Your task to perform on an android device: Open the Play Movies app and select the watchlist tab. Image 0: 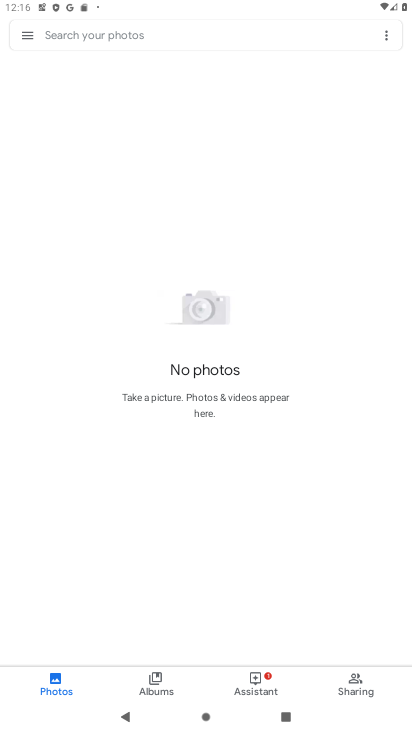
Step 0: press home button
Your task to perform on an android device: Open the Play Movies app and select the watchlist tab. Image 1: 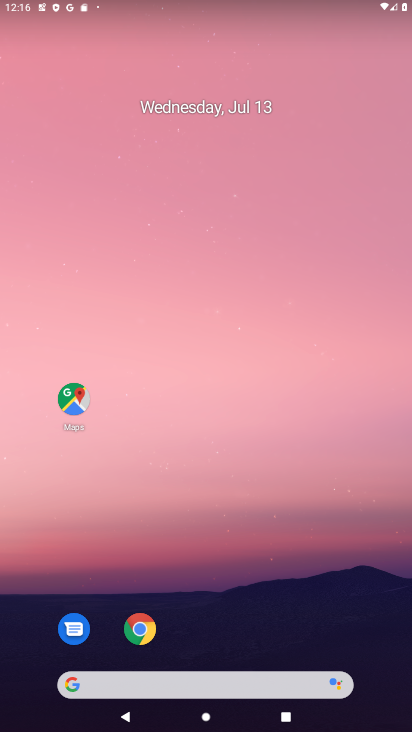
Step 1: drag from (236, 608) to (229, 249)
Your task to perform on an android device: Open the Play Movies app and select the watchlist tab. Image 2: 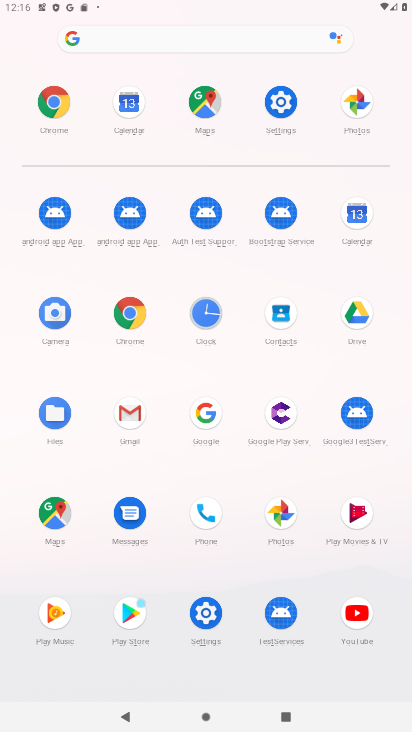
Step 2: click (352, 509)
Your task to perform on an android device: Open the Play Movies app and select the watchlist tab. Image 3: 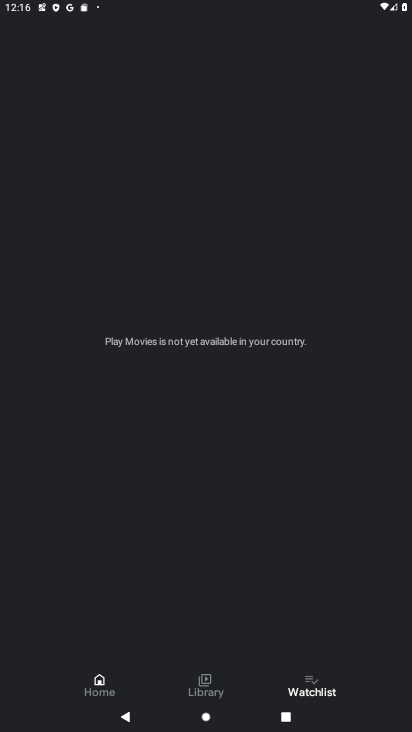
Step 3: click (325, 678)
Your task to perform on an android device: Open the Play Movies app and select the watchlist tab. Image 4: 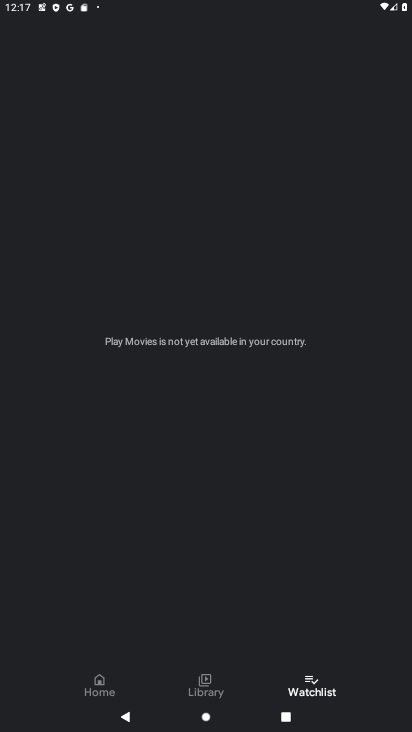
Step 4: task complete